Your task to perform on an android device: delete a single message in the gmail app Image 0: 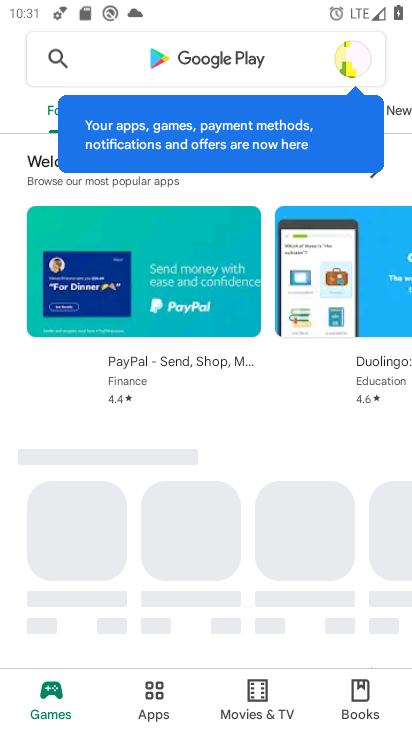
Step 0: press home button
Your task to perform on an android device: delete a single message in the gmail app Image 1: 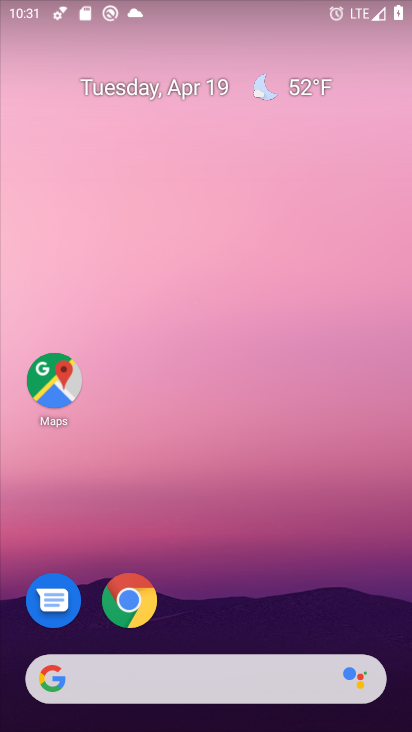
Step 1: drag from (311, 616) to (269, 255)
Your task to perform on an android device: delete a single message in the gmail app Image 2: 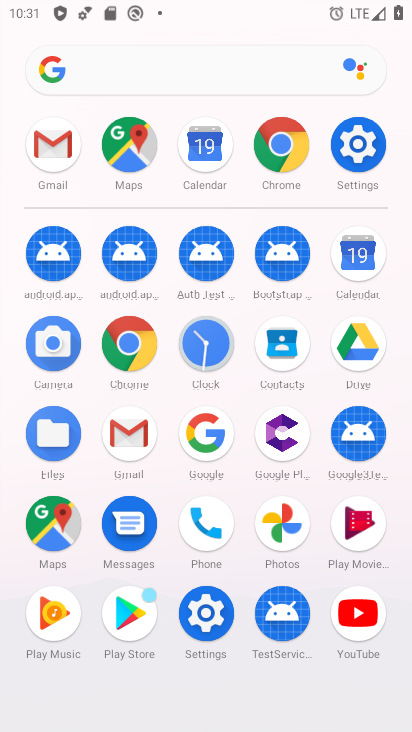
Step 2: click (122, 443)
Your task to perform on an android device: delete a single message in the gmail app Image 3: 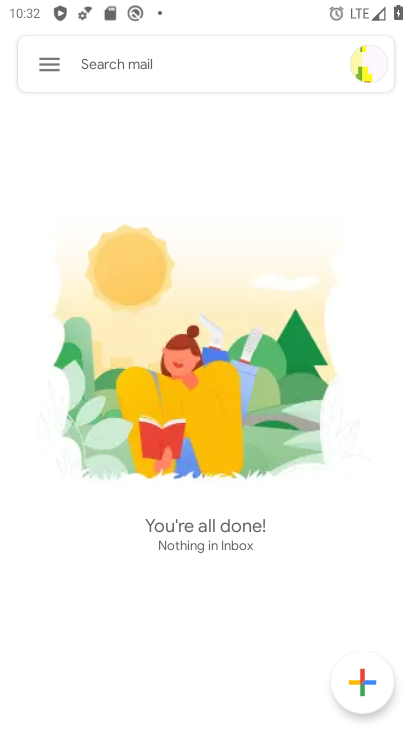
Step 3: task complete